Your task to perform on an android device: What's on the menu at Subway? Image 0: 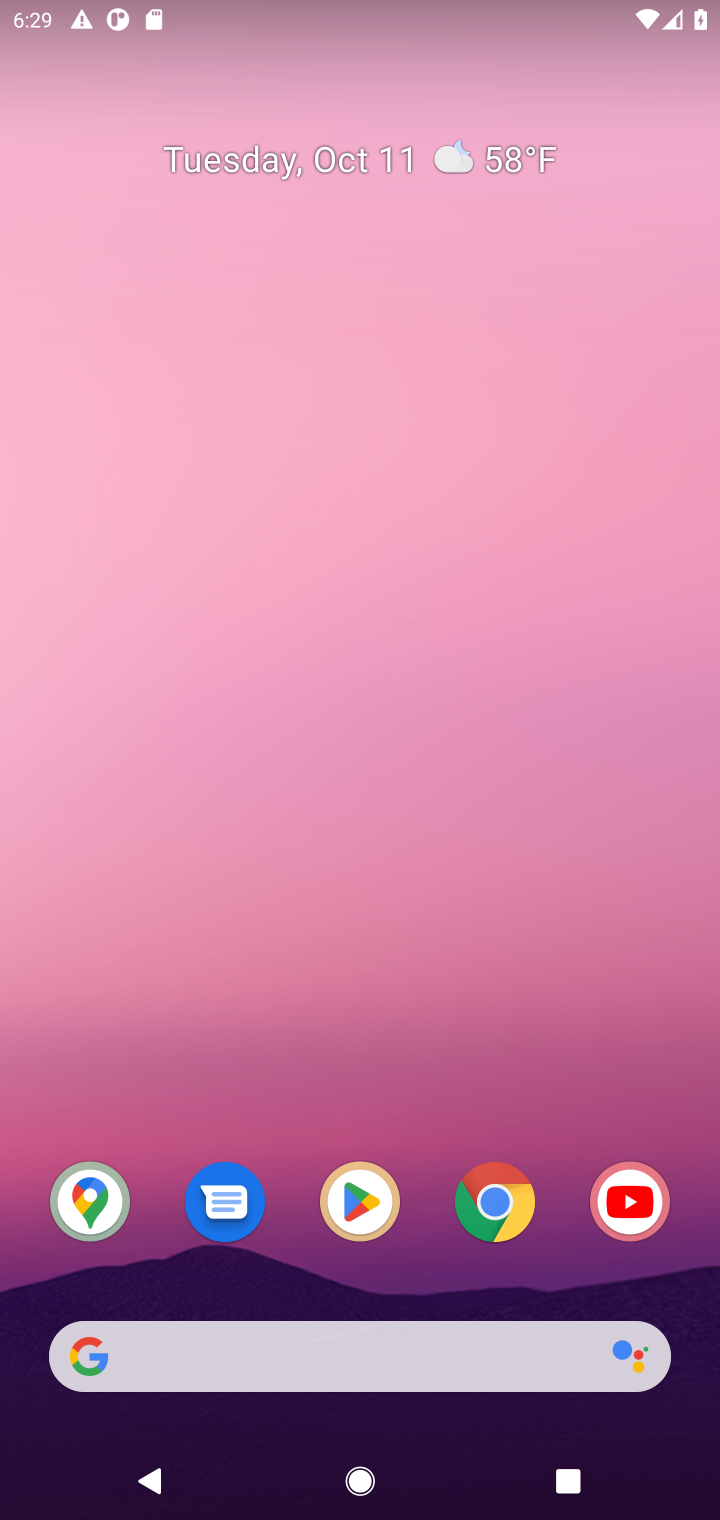
Step 0: click (501, 1217)
Your task to perform on an android device: What's on the menu at Subway? Image 1: 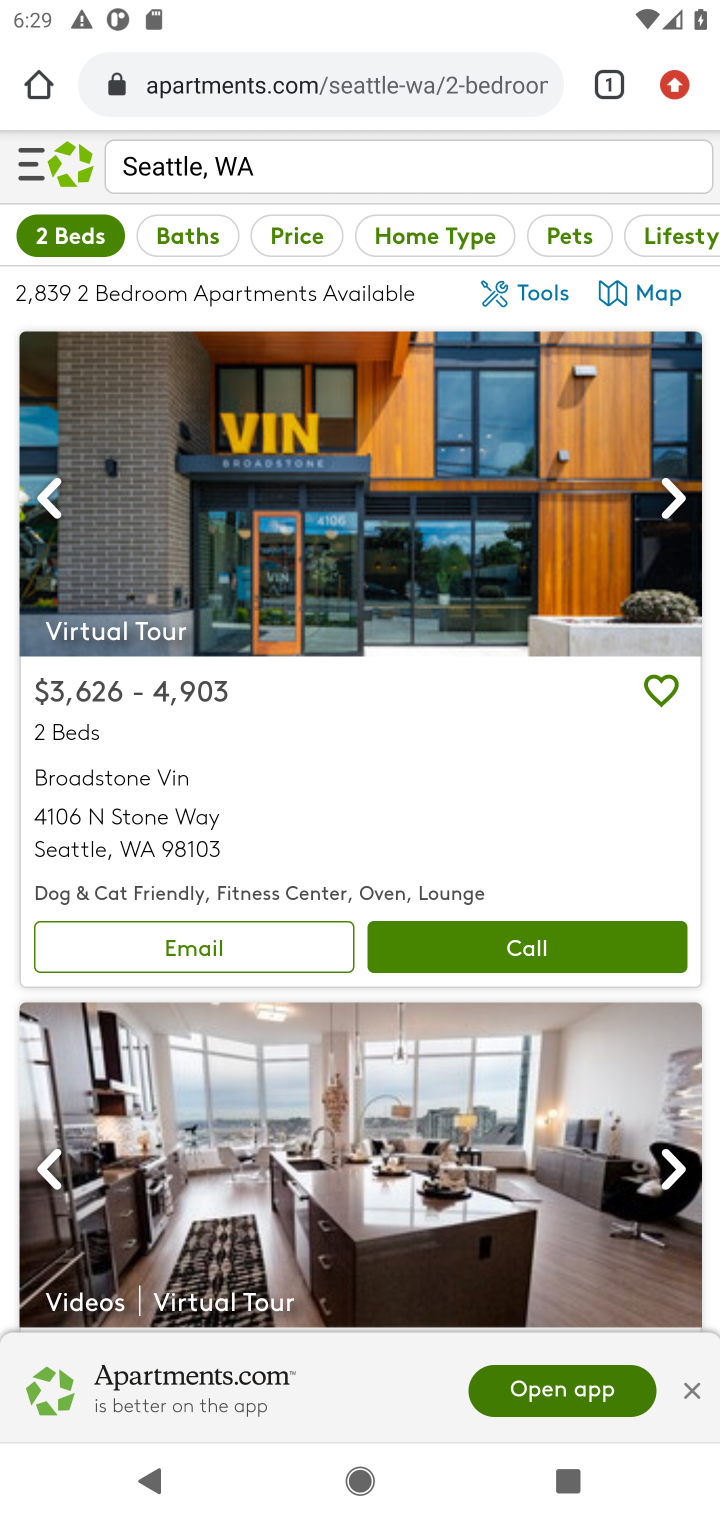
Step 1: click (422, 102)
Your task to perform on an android device: What's on the menu at Subway? Image 2: 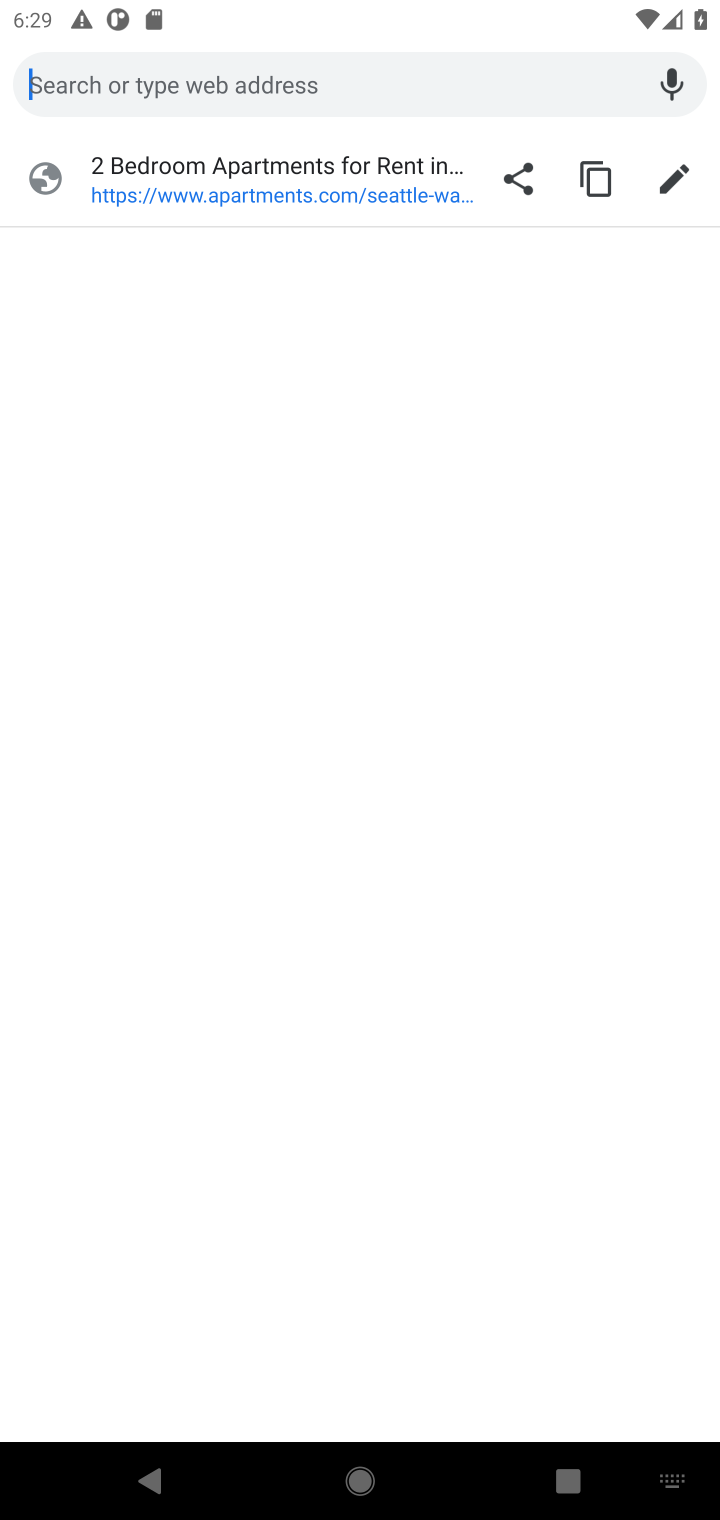
Step 2: type "subway menu"
Your task to perform on an android device: What's on the menu at Subway? Image 3: 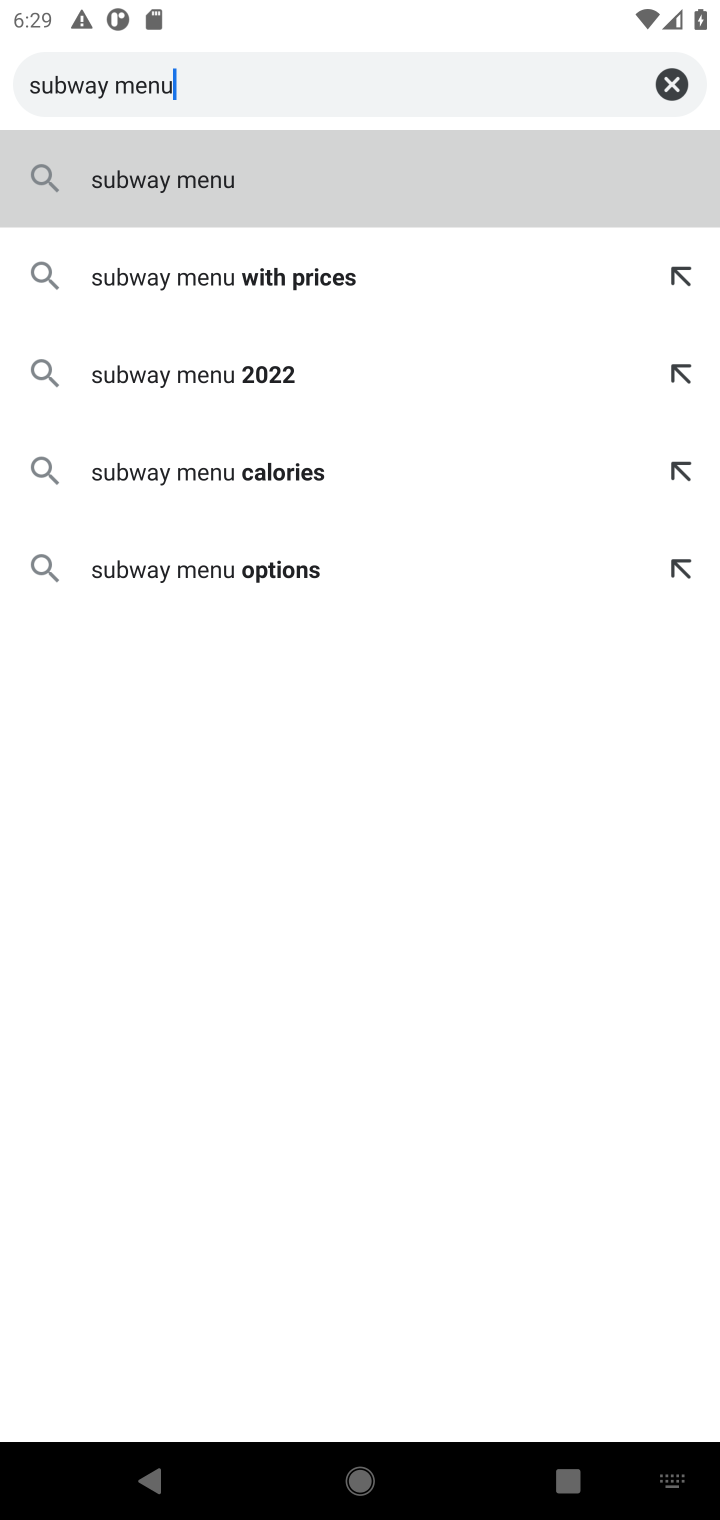
Step 3: click (165, 178)
Your task to perform on an android device: What's on the menu at Subway? Image 4: 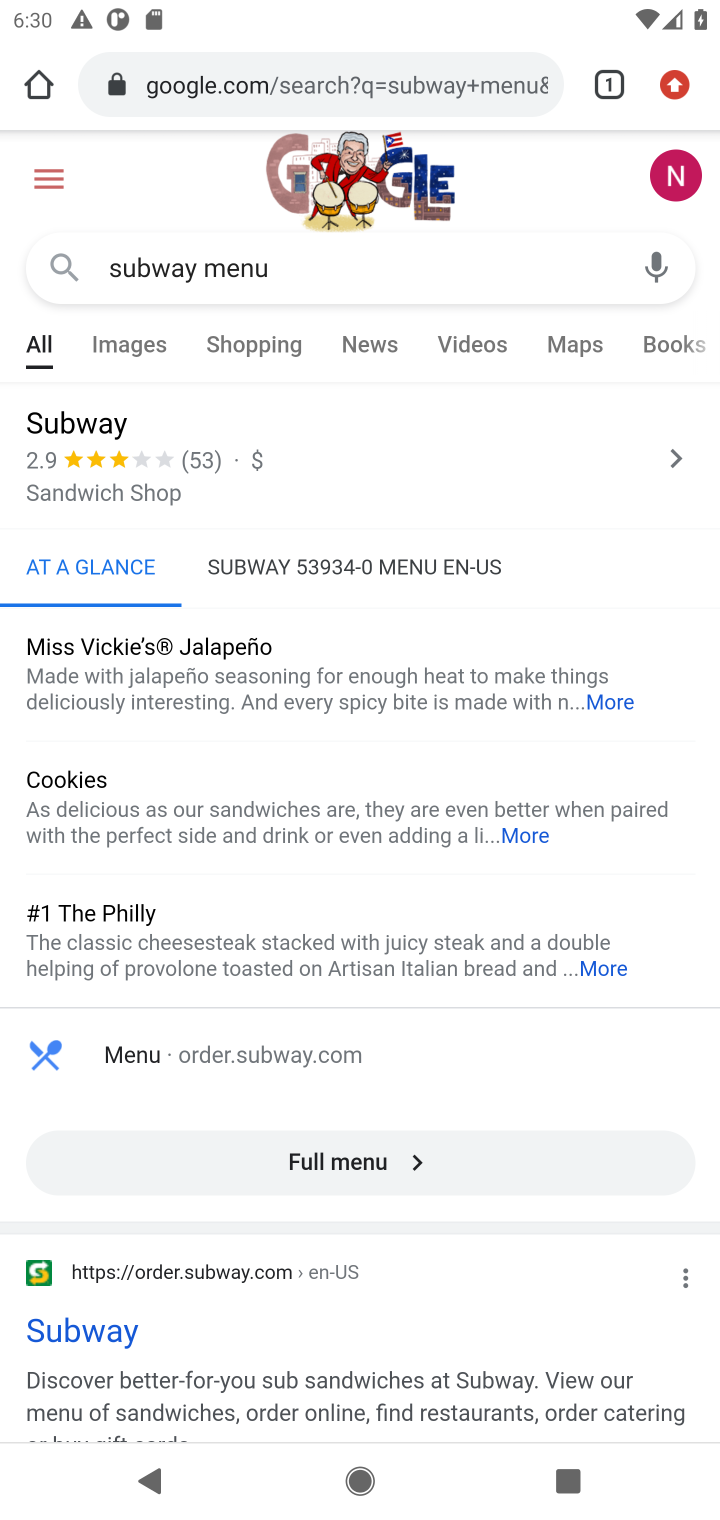
Step 4: drag from (484, 1019) to (386, 648)
Your task to perform on an android device: What's on the menu at Subway? Image 5: 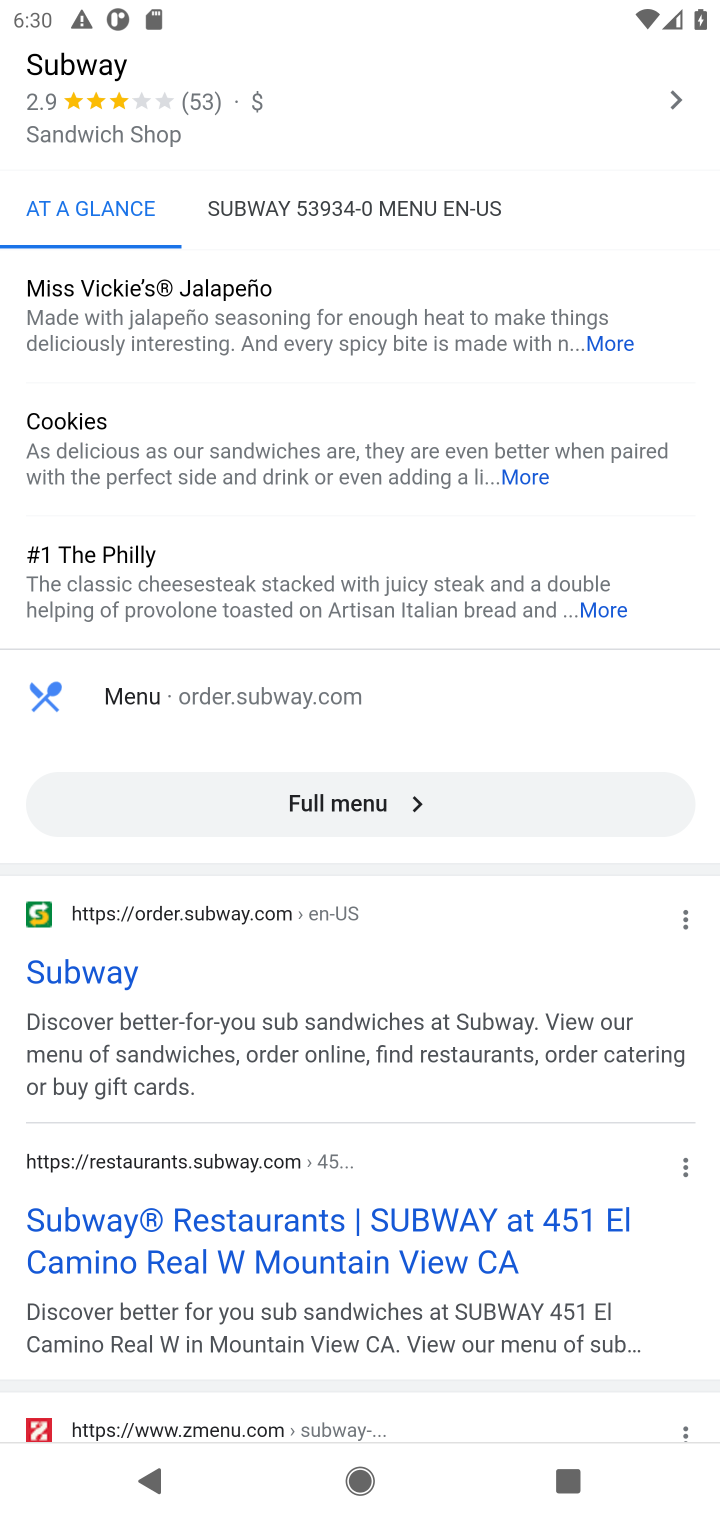
Step 5: click (360, 805)
Your task to perform on an android device: What's on the menu at Subway? Image 6: 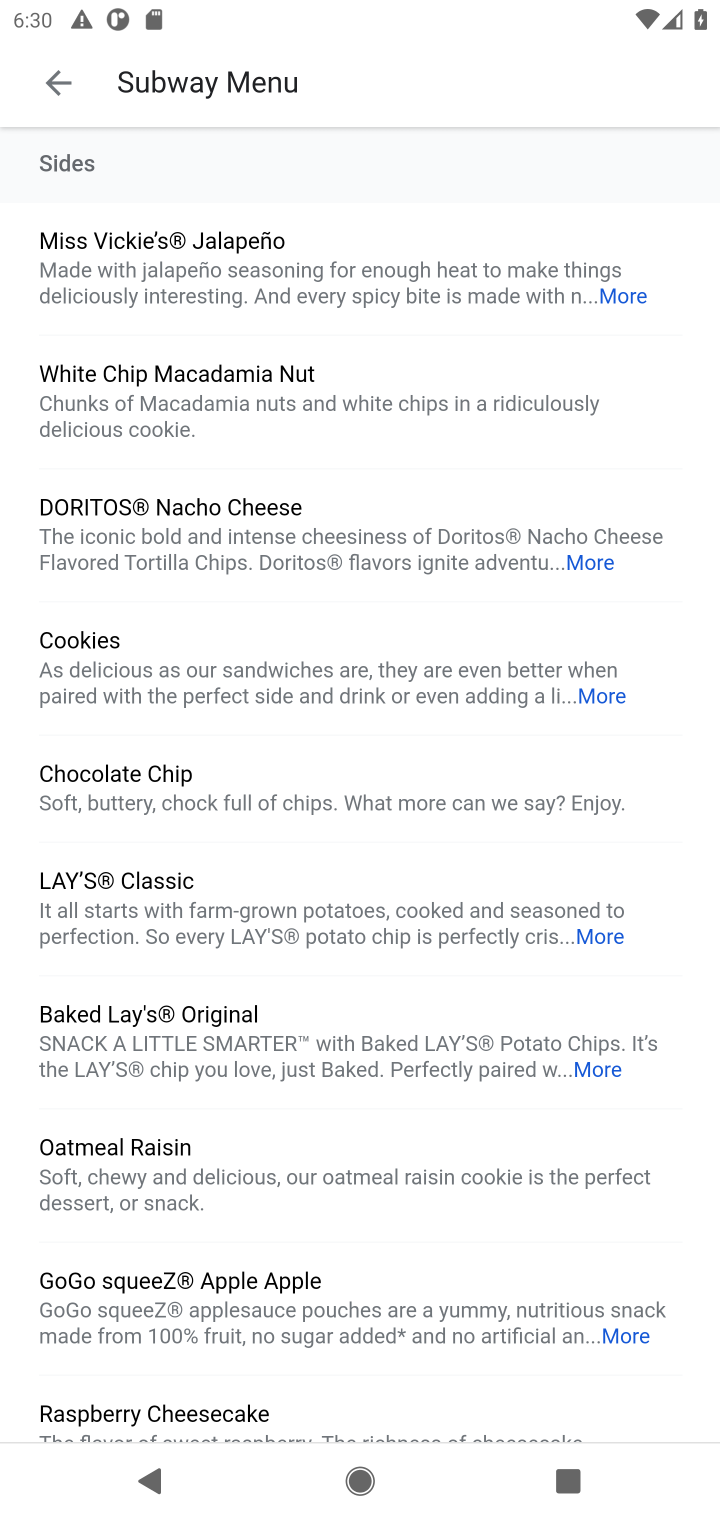
Step 6: task complete